Your task to perform on an android device: toggle data saver in the chrome app Image 0: 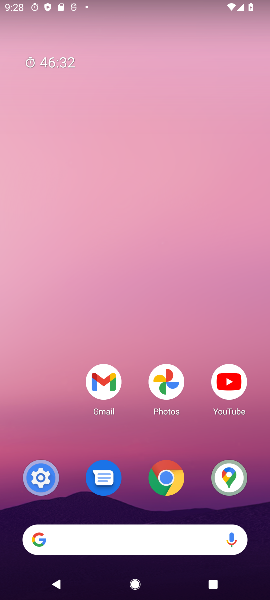
Step 0: press home button
Your task to perform on an android device: toggle data saver in the chrome app Image 1: 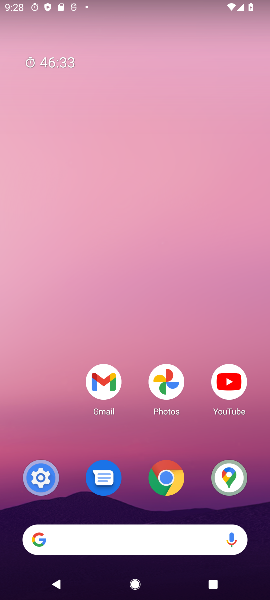
Step 1: drag from (134, 520) to (52, 23)
Your task to perform on an android device: toggle data saver in the chrome app Image 2: 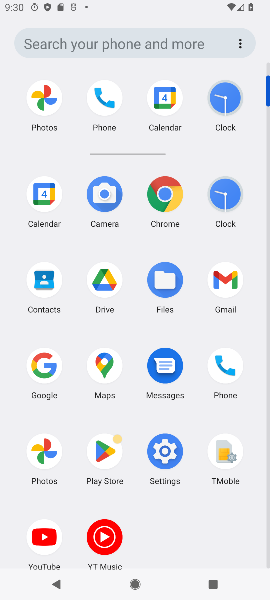
Step 2: click (158, 208)
Your task to perform on an android device: toggle data saver in the chrome app Image 3: 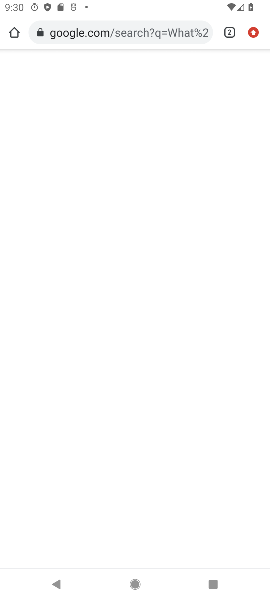
Step 3: drag from (254, 27) to (189, 408)
Your task to perform on an android device: toggle data saver in the chrome app Image 4: 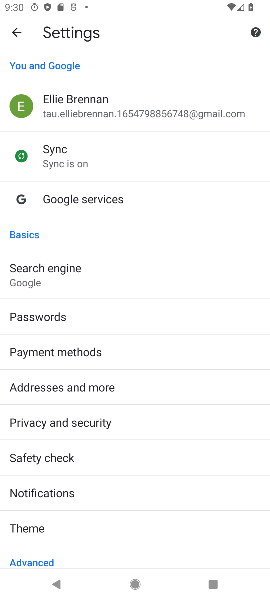
Step 4: drag from (137, 517) to (124, 270)
Your task to perform on an android device: toggle data saver in the chrome app Image 5: 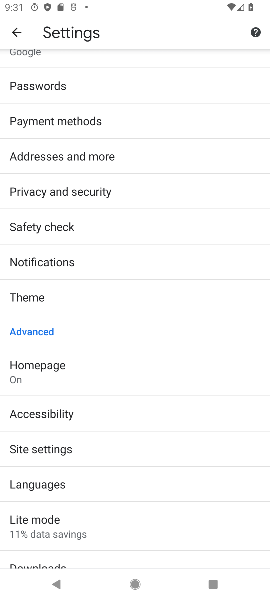
Step 5: click (41, 527)
Your task to perform on an android device: toggle data saver in the chrome app Image 6: 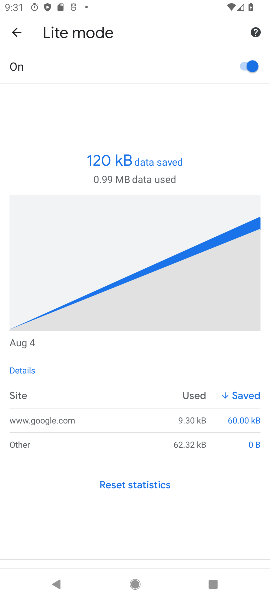
Step 6: click (137, 73)
Your task to perform on an android device: toggle data saver in the chrome app Image 7: 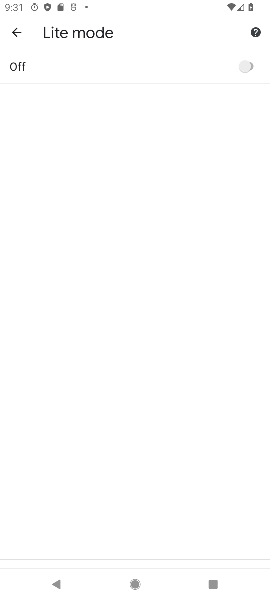
Step 7: task complete